Your task to perform on an android device: uninstall "AliExpress" Image 0: 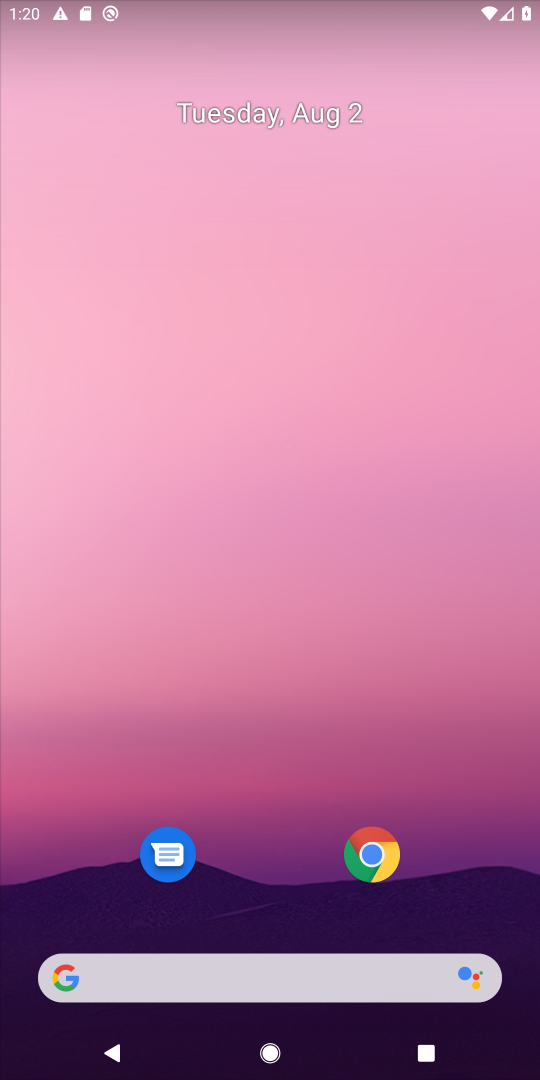
Step 0: drag from (350, 793) to (362, 292)
Your task to perform on an android device: uninstall "AliExpress" Image 1: 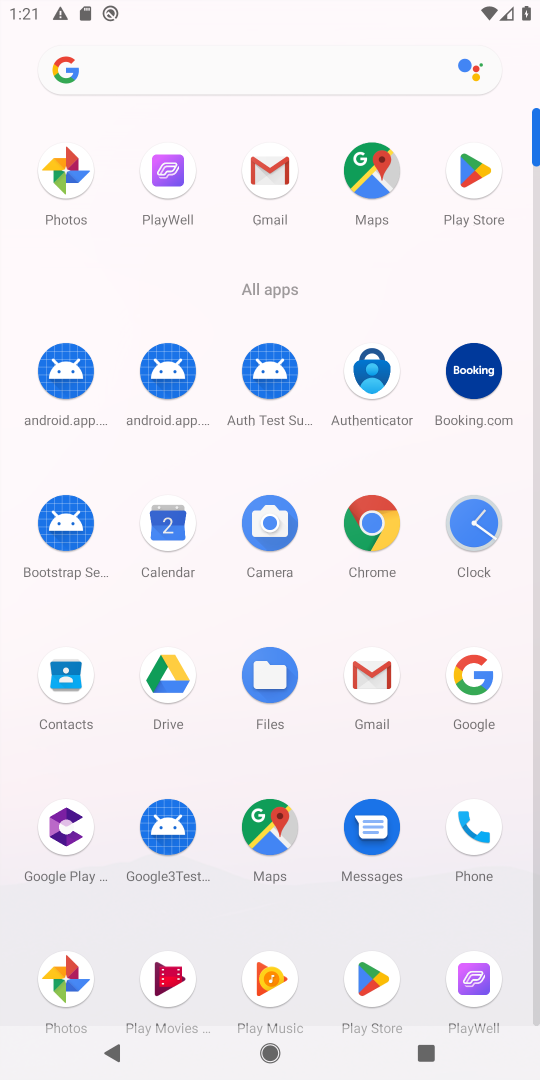
Step 1: click (469, 193)
Your task to perform on an android device: uninstall "AliExpress" Image 2: 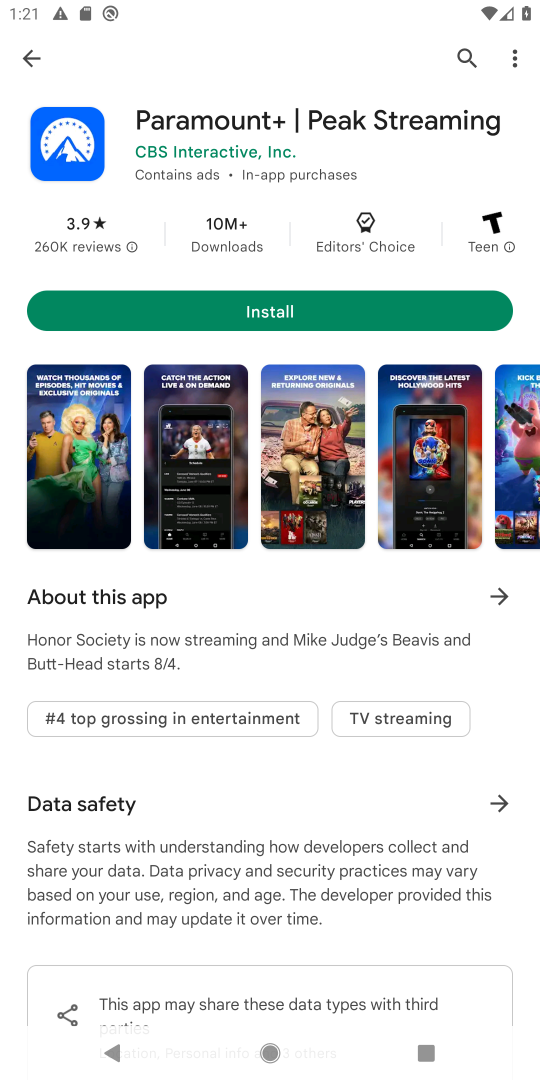
Step 2: click (466, 55)
Your task to perform on an android device: uninstall "AliExpress" Image 3: 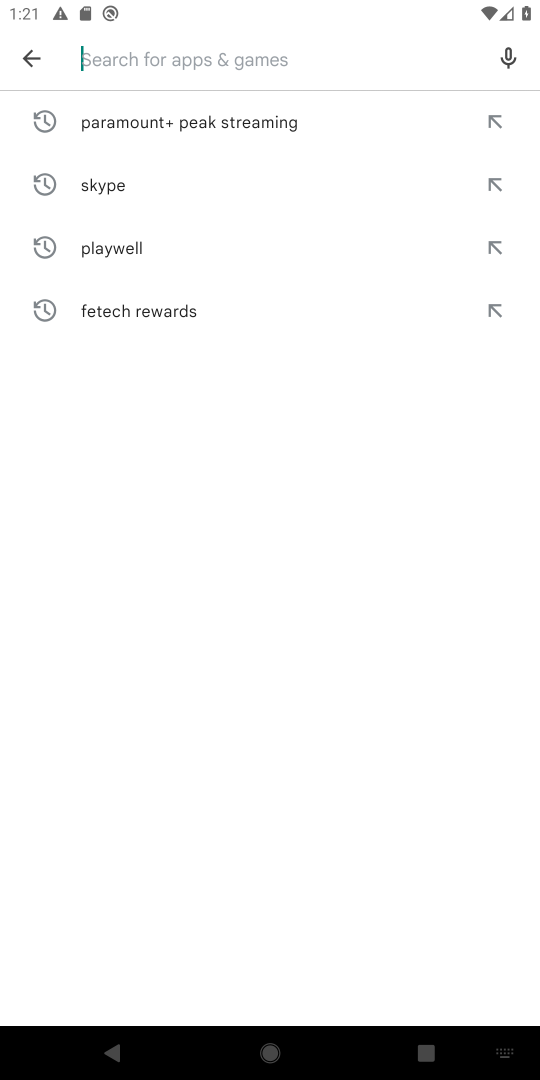
Step 3: type "AliExpress"
Your task to perform on an android device: uninstall "AliExpress" Image 4: 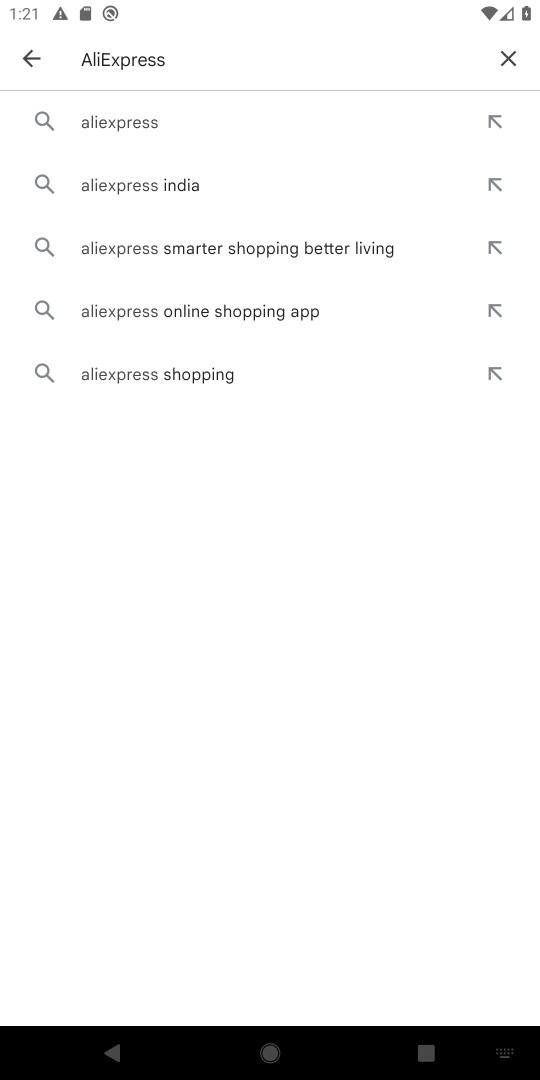
Step 4: click (129, 123)
Your task to perform on an android device: uninstall "AliExpress" Image 5: 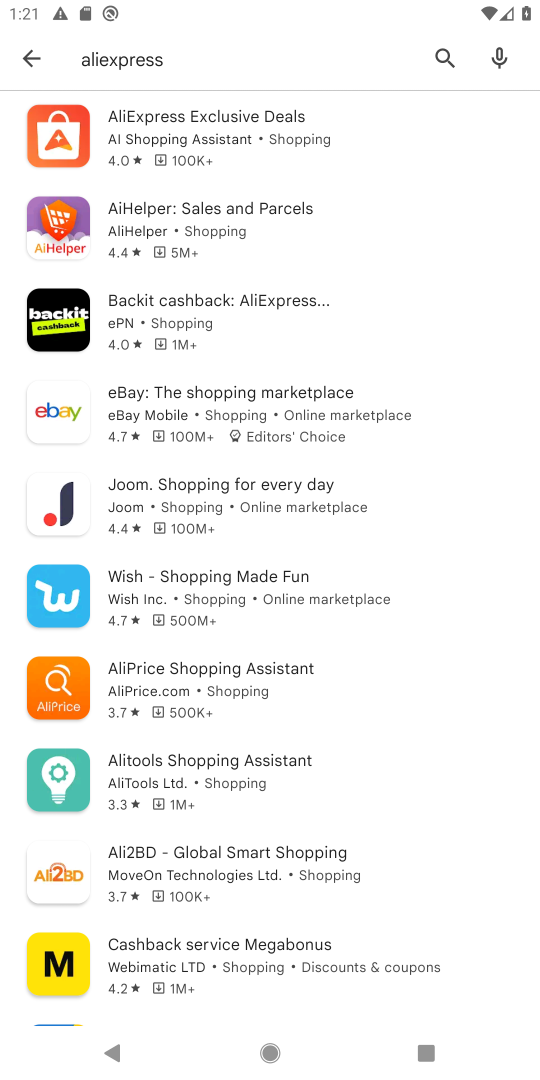
Step 5: click (129, 125)
Your task to perform on an android device: uninstall "AliExpress" Image 6: 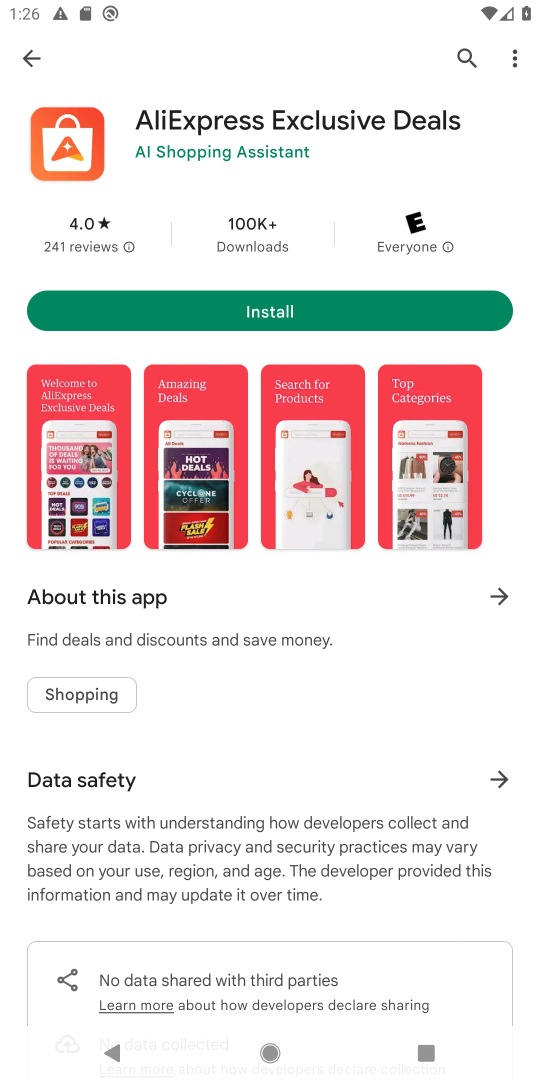
Step 6: task complete